Your task to perform on an android device: see tabs open on other devices in the chrome app Image 0: 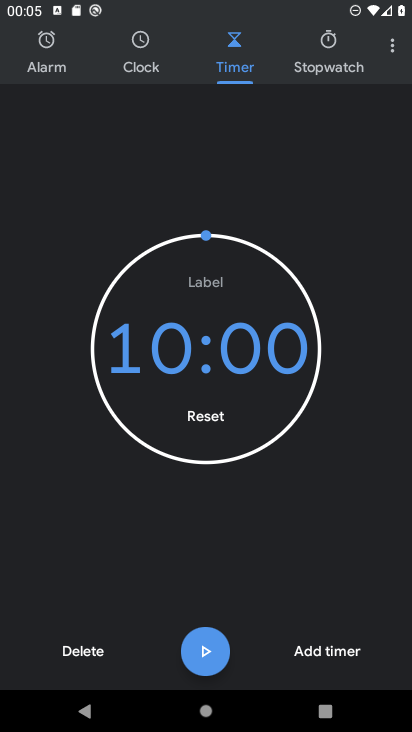
Step 0: press home button
Your task to perform on an android device: see tabs open on other devices in the chrome app Image 1: 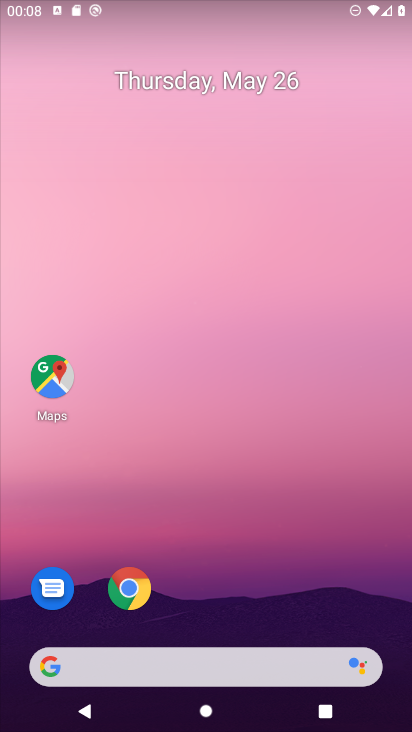
Step 1: click (123, 589)
Your task to perform on an android device: see tabs open on other devices in the chrome app Image 2: 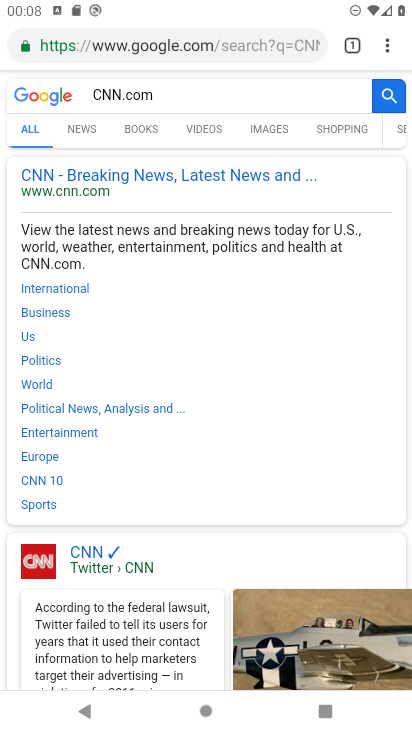
Step 2: click (359, 41)
Your task to perform on an android device: see tabs open on other devices in the chrome app Image 3: 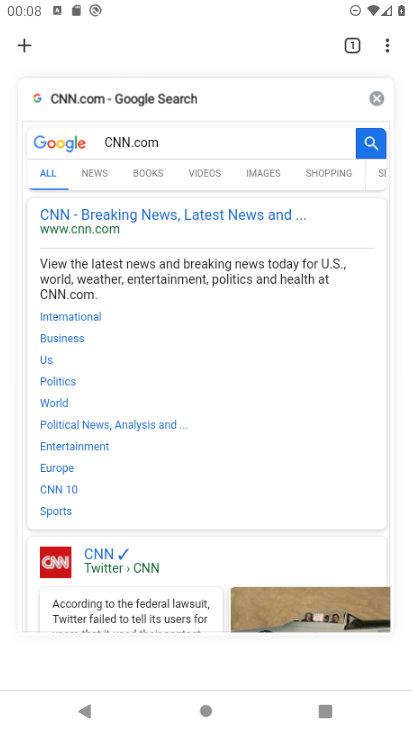
Step 3: task complete